Your task to perform on an android device: Check the weather Image 0: 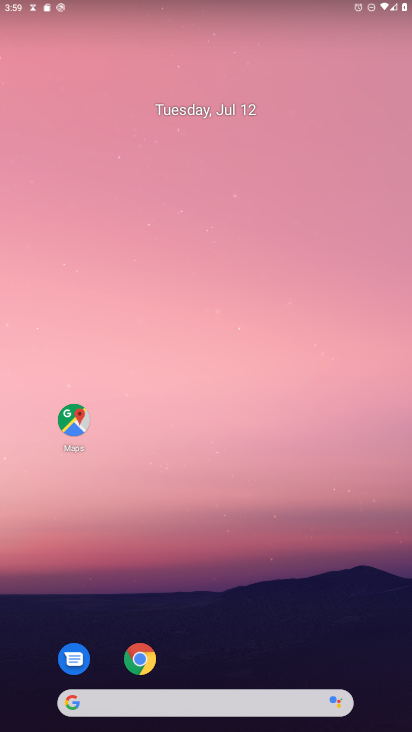
Step 0: click (186, 626)
Your task to perform on an android device: Check the weather Image 1: 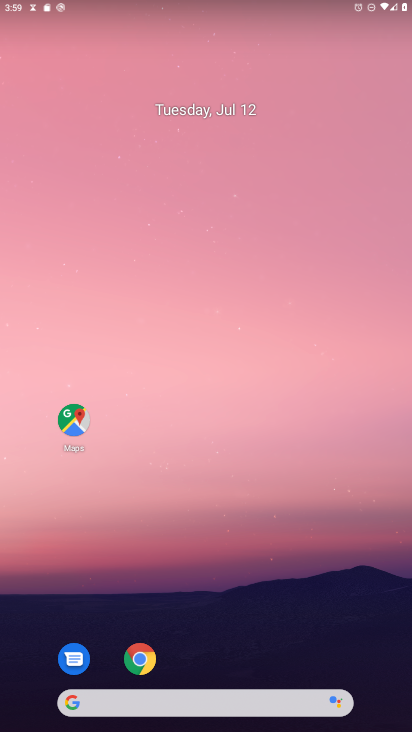
Step 1: click (153, 703)
Your task to perform on an android device: Check the weather Image 2: 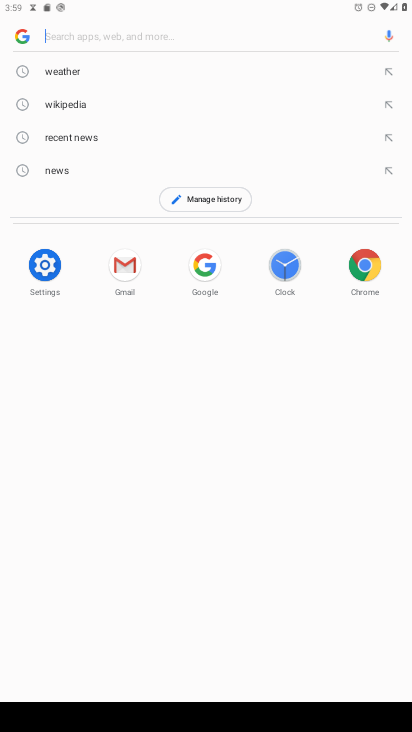
Step 2: click (51, 77)
Your task to perform on an android device: Check the weather Image 3: 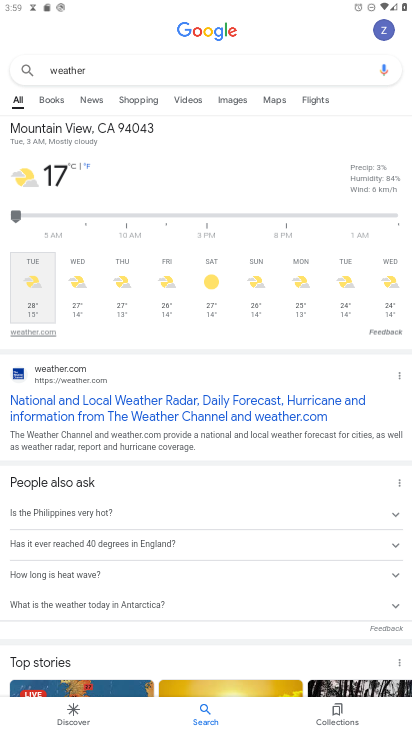
Step 3: task complete